Your task to perform on an android device: What's the weather going to be tomorrow? Image 0: 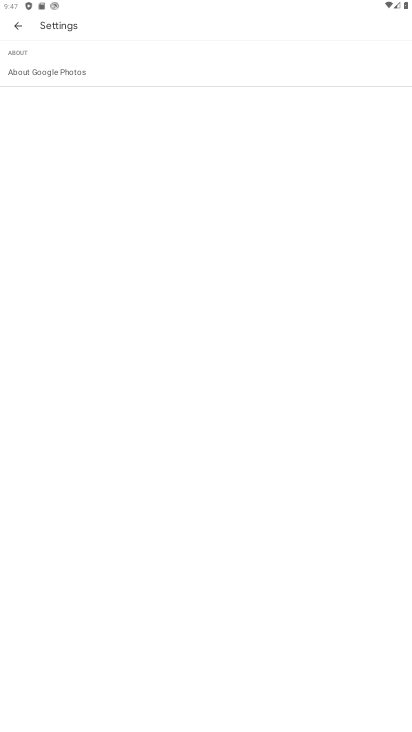
Step 0: press home button
Your task to perform on an android device: What's the weather going to be tomorrow? Image 1: 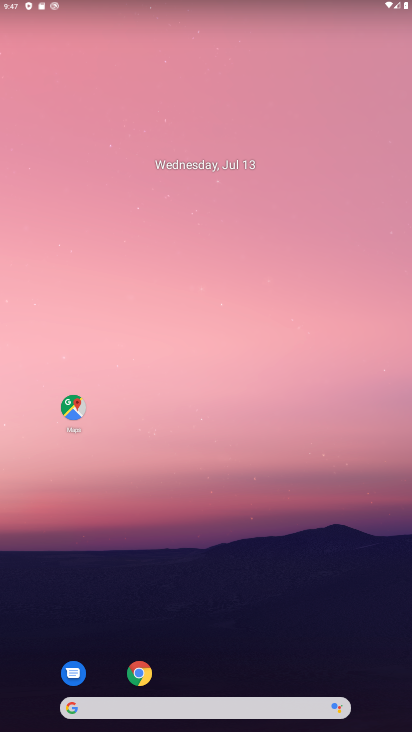
Step 1: click (221, 232)
Your task to perform on an android device: What's the weather going to be tomorrow? Image 2: 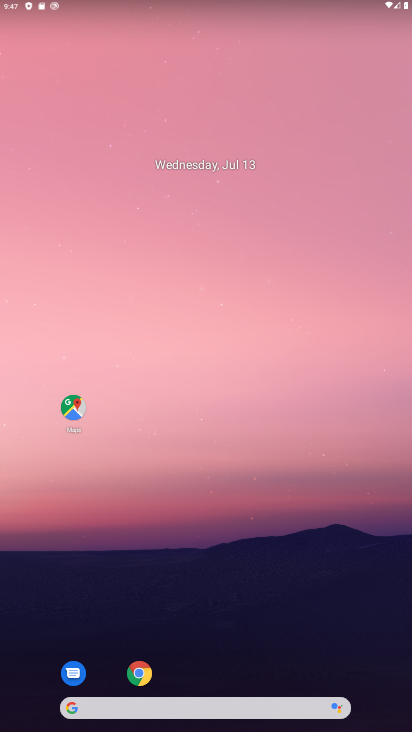
Step 2: drag from (208, 691) to (220, 50)
Your task to perform on an android device: What's the weather going to be tomorrow? Image 3: 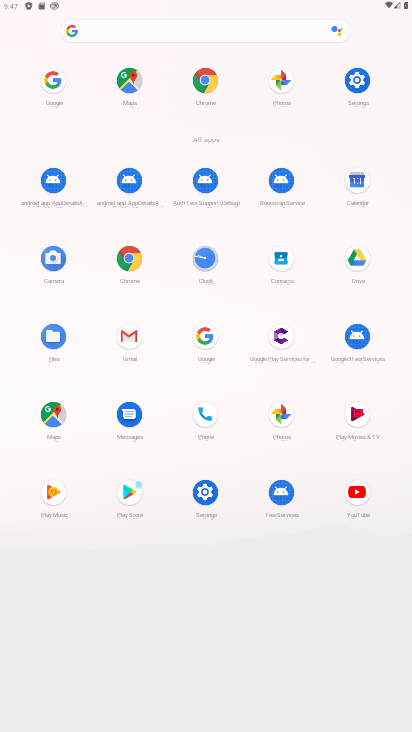
Step 3: click (209, 337)
Your task to perform on an android device: What's the weather going to be tomorrow? Image 4: 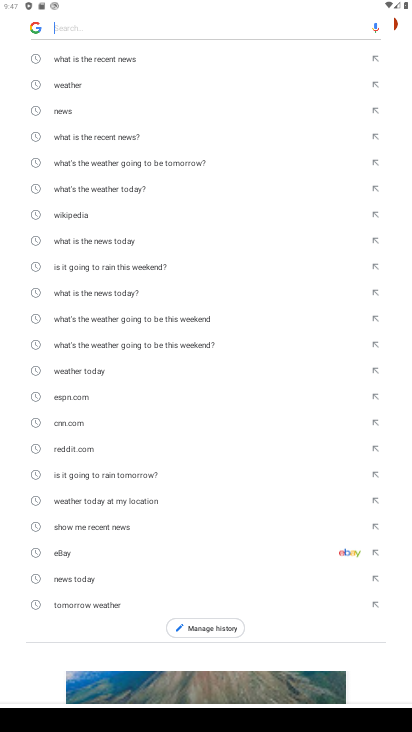
Step 4: click (70, 77)
Your task to perform on an android device: What's the weather going to be tomorrow? Image 5: 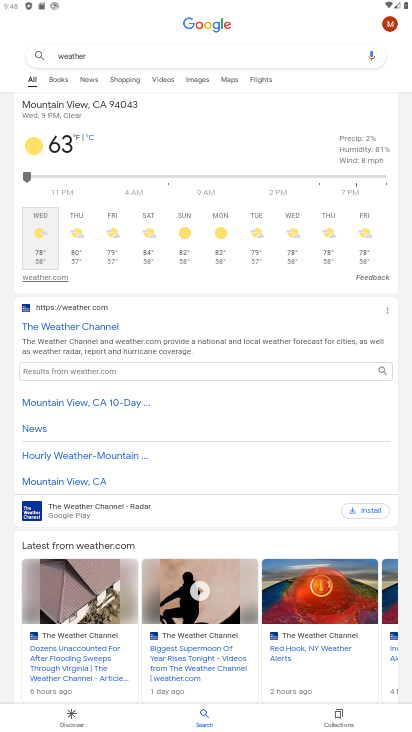
Step 5: task complete